Your task to perform on an android device: delete a single message in the gmail app Image 0: 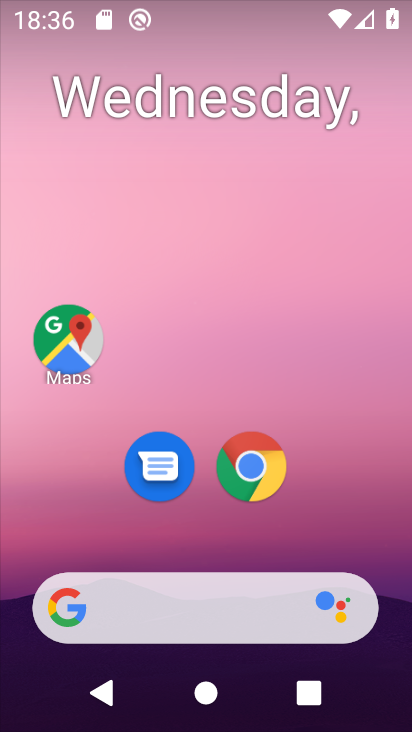
Step 0: drag from (323, 530) to (300, 6)
Your task to perform on an android device: delete a single message in the gmail app Image 1: 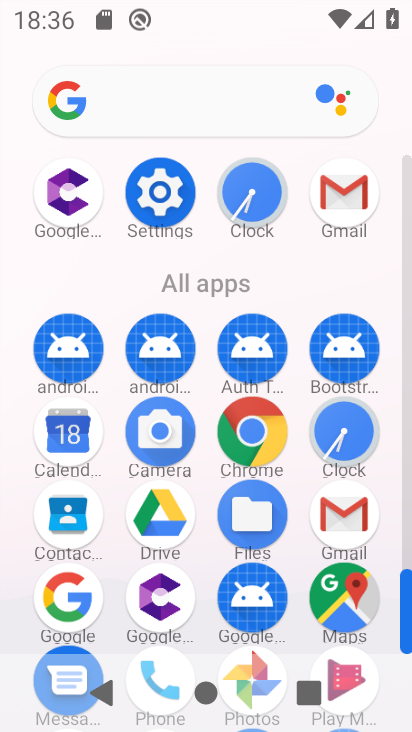
Step 1: click (336, 518)
Your task to perform on an android device: delete a single message in the gmail app Image 2: 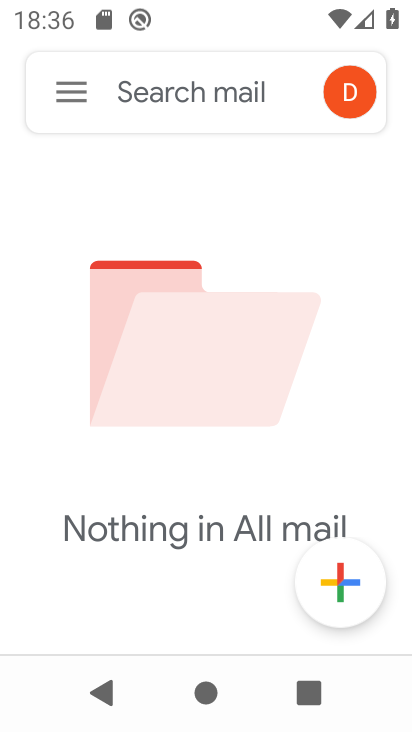
Step 2: task complete